Your task to perform on an android device: Go to battery settings Image 0: 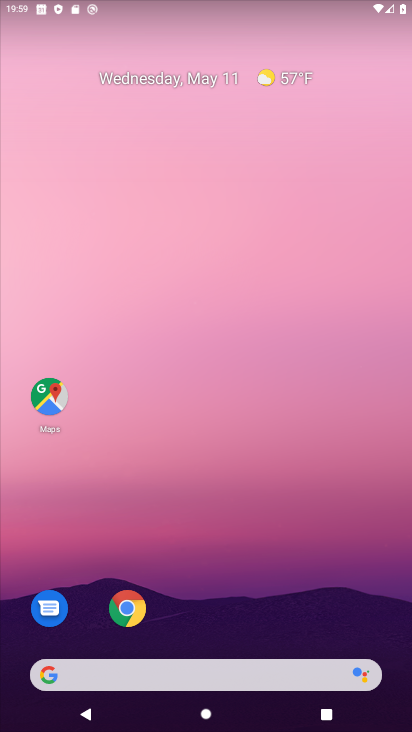
Step 0: drag from (272, 618) to (217, 18)
Your task to perform on an android device: Go to battery settings Image 1: 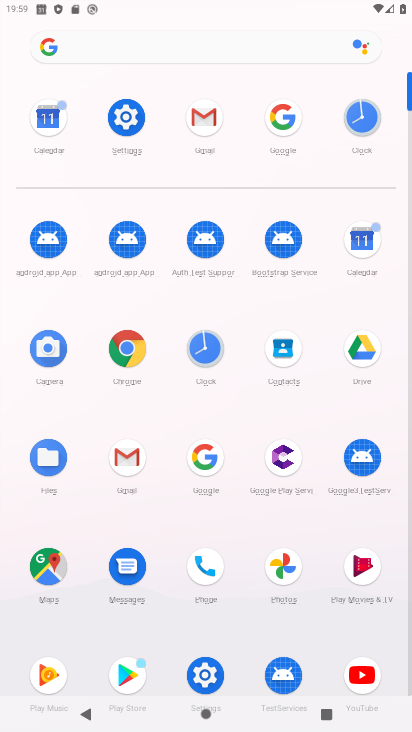
Step 1: click (132, 115)
Your task to perform on an android device: Go to battery settings Image 2: 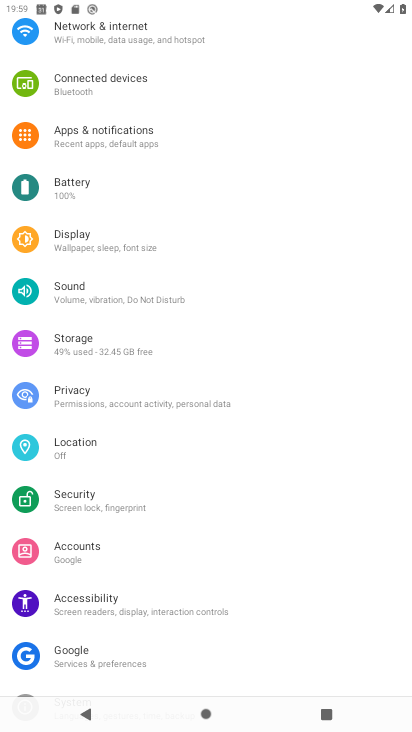
Step 2: click (116, 189)
Your task to perform on an android device: Go to battery settings Image 3: 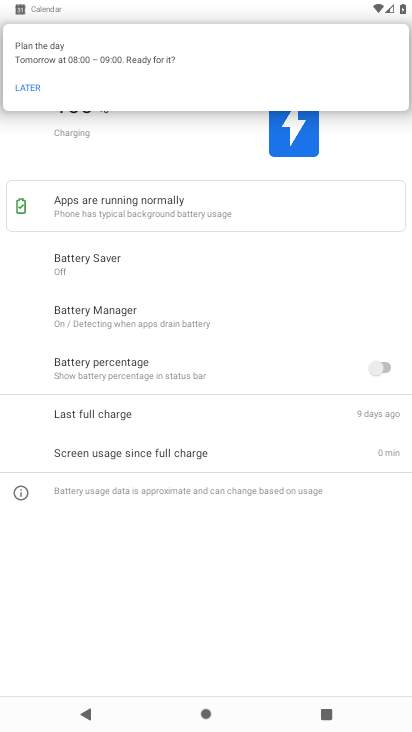
Step 3: task complete